Your task to perform on an android device: Is it going to rain tomorrow? Image 0: 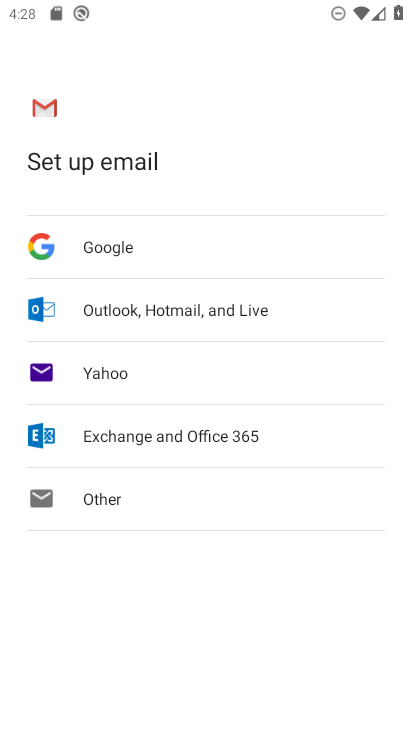
Step 0: press home button
Your task to perform on an android device: Is it going to rain tomorrow? Image 1: 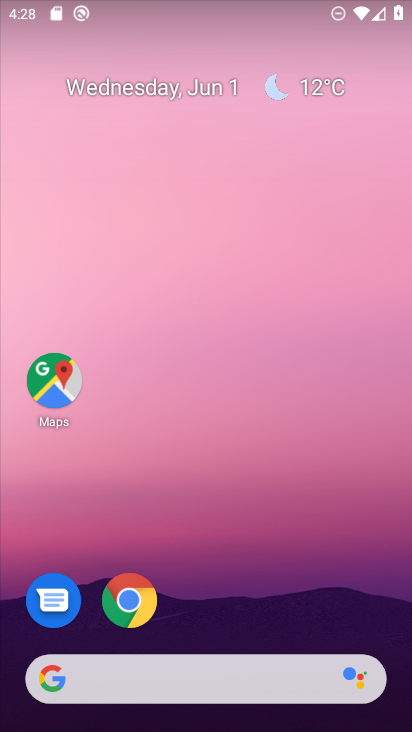
Step 1: click (310, 89)
Your task to perform on an android device: Is it going to rain tomorrow? Image 2: 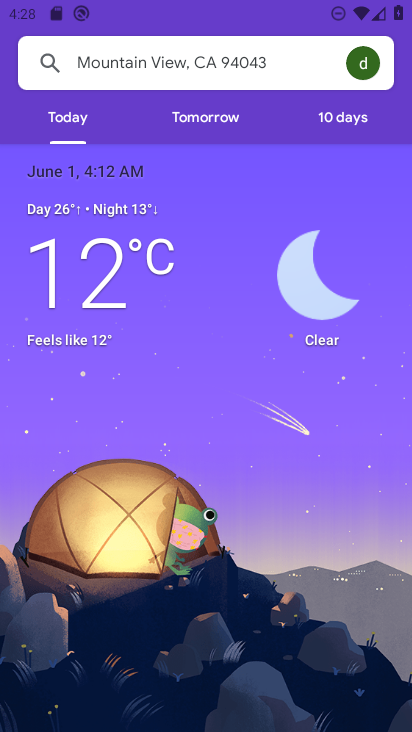
Step 2: click (219, 120)
Your task to perform on an android device: Is it going to rain tomorrow? Image 3: 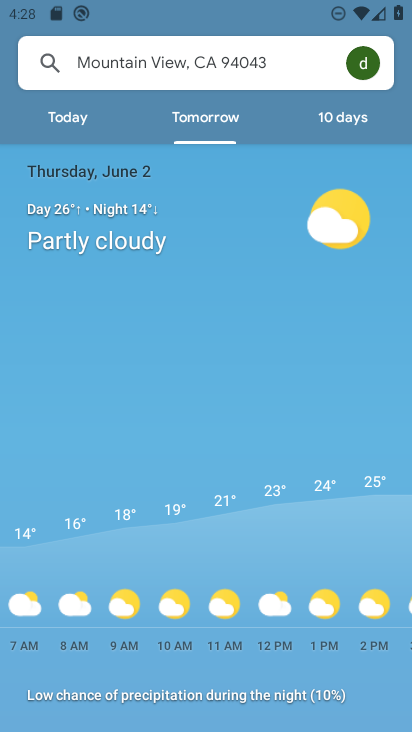
Step 3: task complete